Your task to perform on an android device: change the clock display to digital Image 0: 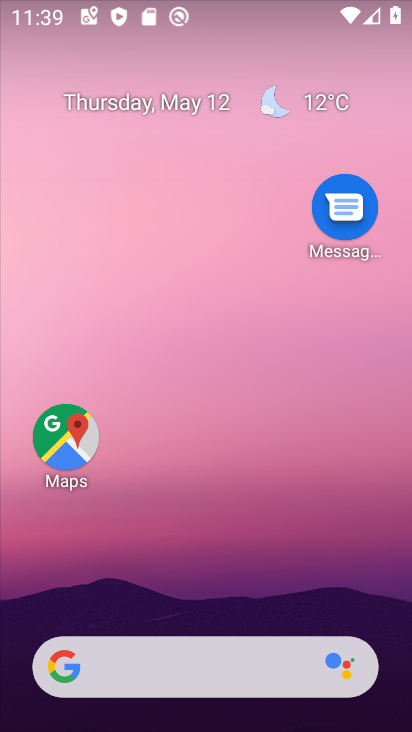
Step 0: press home button
Your task to perform on an android device: change the clock display to digital Image 1: 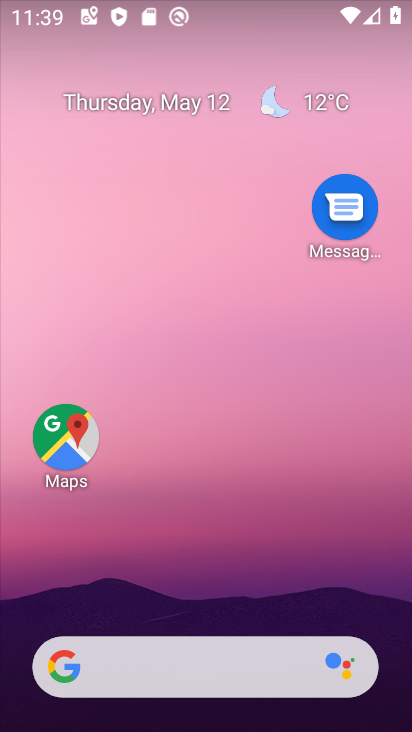
Step 1: press home button
Your task to perform on an android device: change the clock display to digital Image 2: 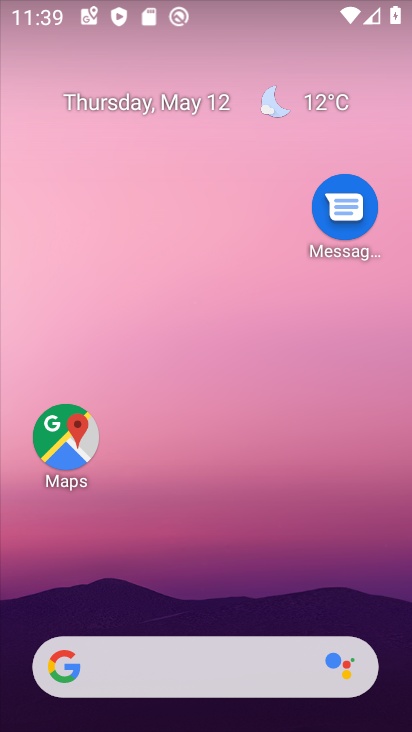
Step 2: drag from (283, 503) to (280, 91)
Your task to perform on an android device: change the clock display to digital Image 3: 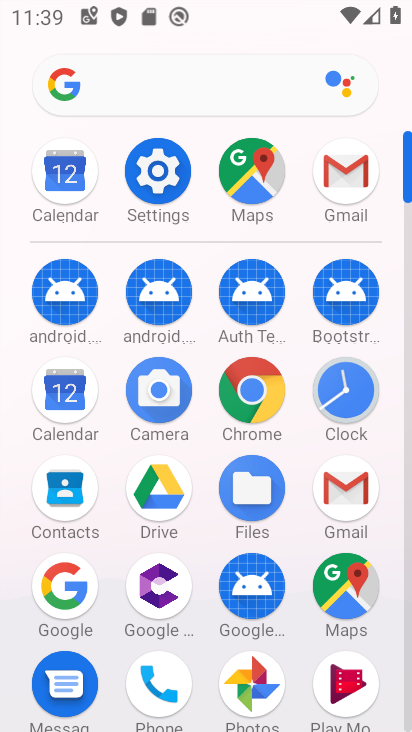
Step 3: click (335, 411)
Your task to perform on an android device: change the clock display to digital Image 4: 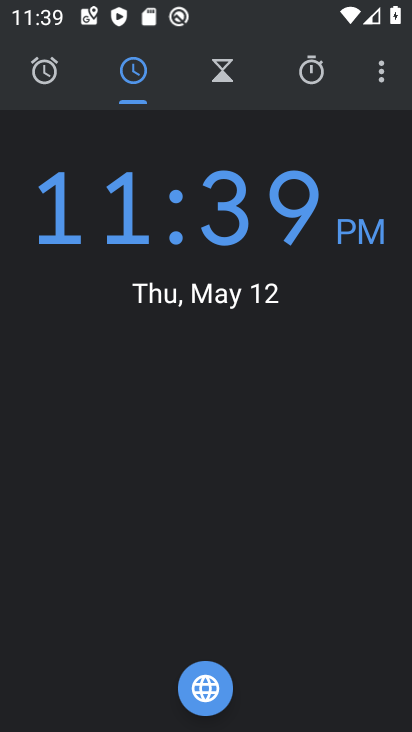
Step 4: click (379, 79)
Your task to perform on an android device: change the clock display to digital Image 5: 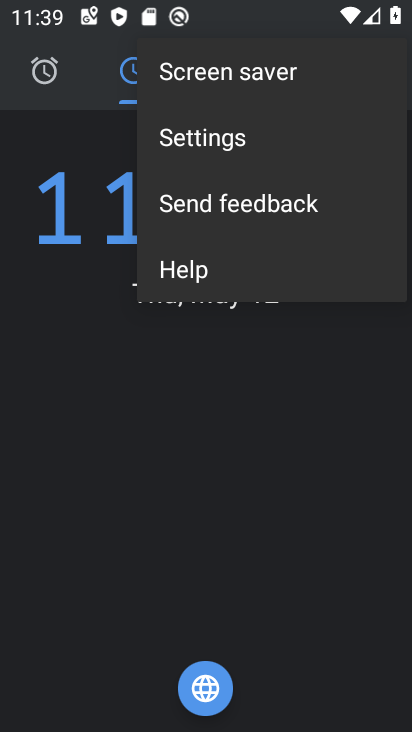
Step 5: click (283, 159)
Your task to perform on an android device: change the clock display to digital Image 6: 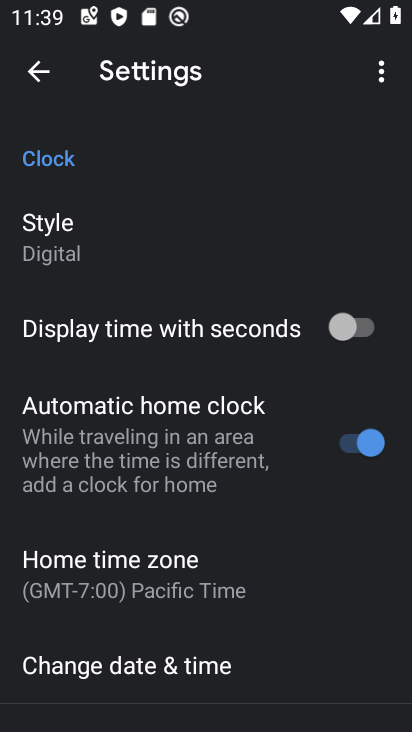
Step 6: task complete